Your task to perform on an android device: remove spam from my inbox in the gmail app Image 0: 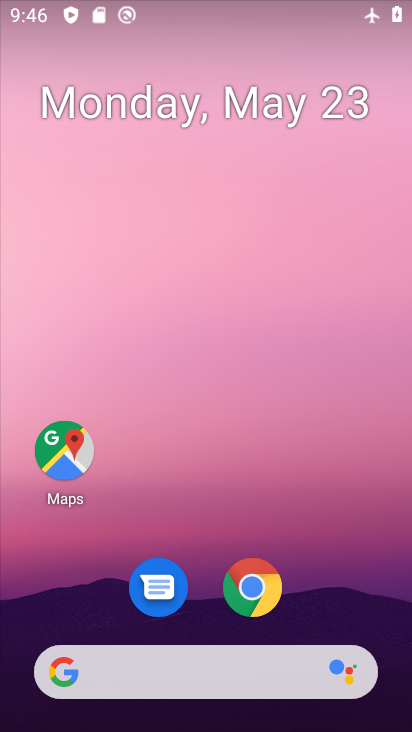
Step 0: drag from (344, 496) to (400, 100)
Your task to perform on an android device: remove spam from my inbox in the gmail app Image 1: 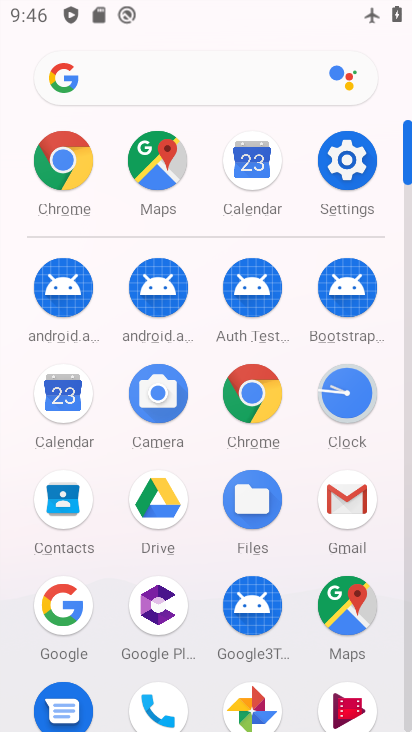
Step 1: click (339, 419)
Your task to perform on an android device: remove spam from my inbox in the gmail app Image 2: 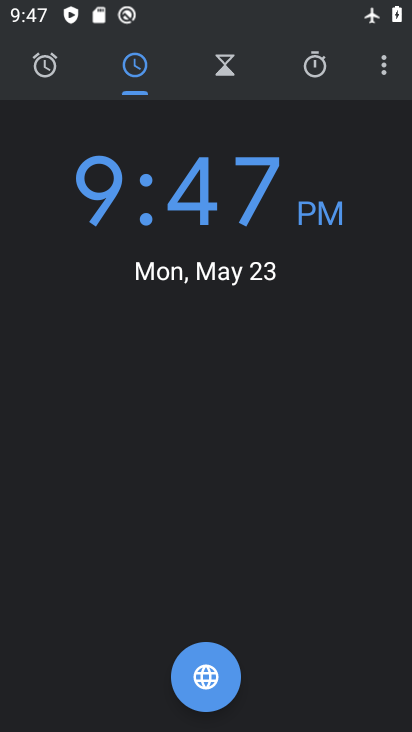
Step 2: press home button
Your task to perform on an android device: remove spam from my inbox in the gmail app Image 3: 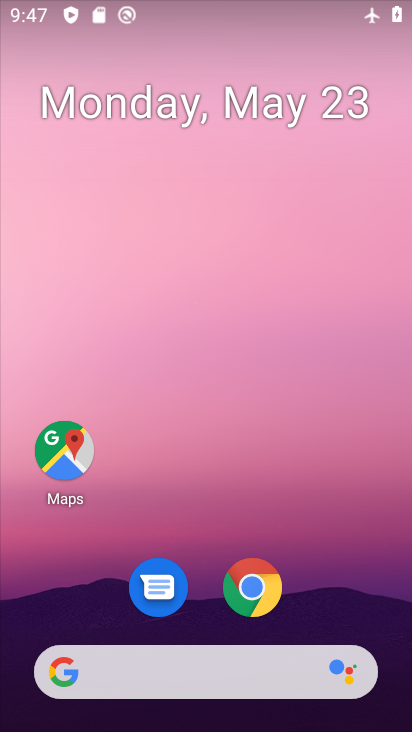
Step 3: drag from (384, 543) to (309, 179)
Your task to perform on an android device: remove spam from my inbox in the gmail app Image 4: 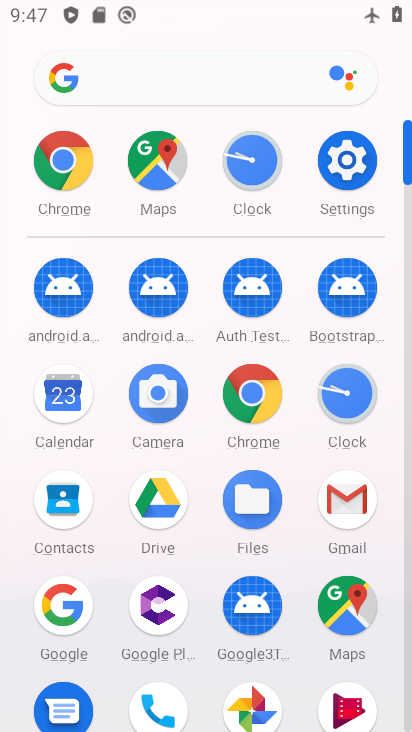
Step 4: click (349, 494)
Your task to perform on an android device: remove spam from my inbox in the gmail app Image 5: 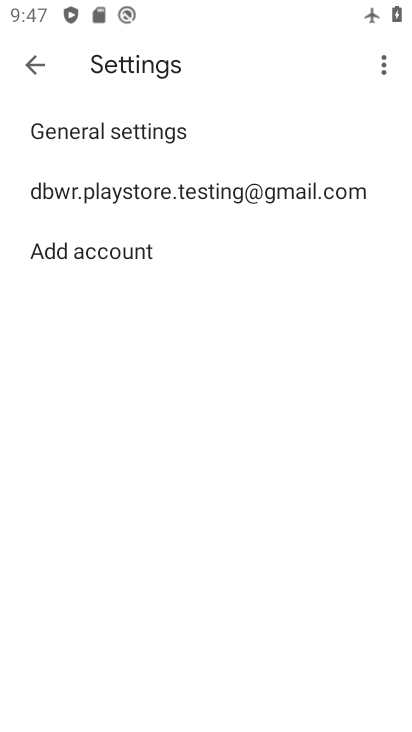
Step 5: click (30, 61)
Your task to perform on an android device: remove spam from my inbox in the gmail app Image 6: 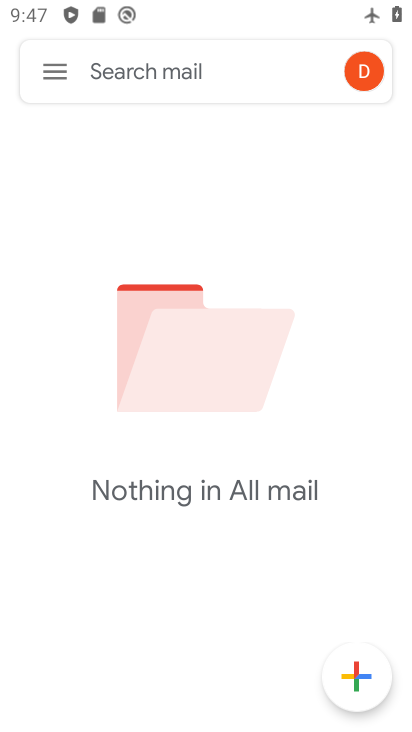
Step 6: click (30, 61)
Your task to perform on an android device: remove spam from my inbox in the gmail app Image 7: 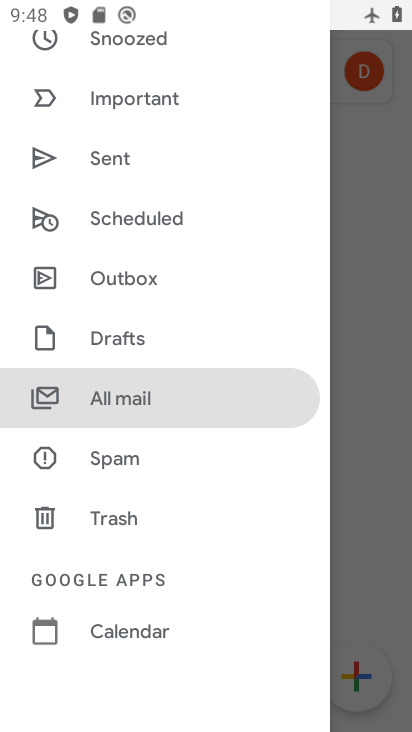
Step 7: click (88, 451)
Your task to perform on an android device: remove spam from my inbox in the gmail app Image 8: 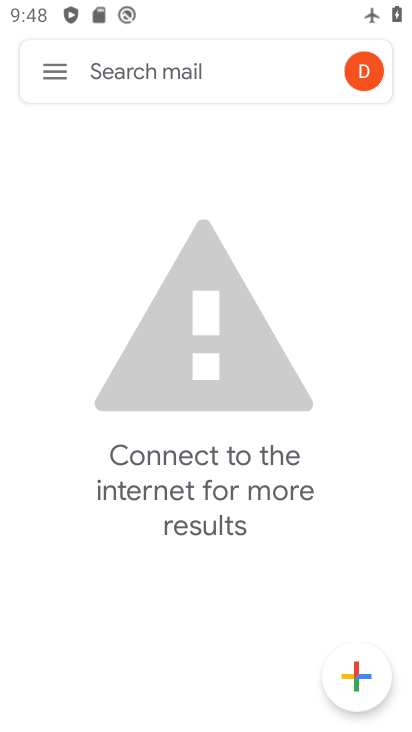
Step 8: task complete